Your task to perform on an android device: open a new tab in the chrome app Image 0: 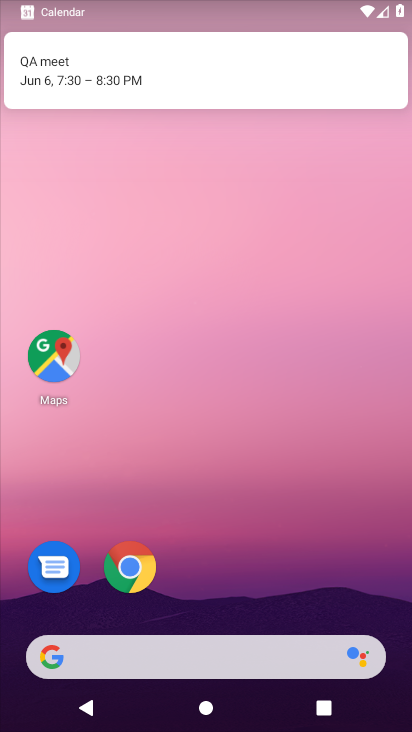
Step 0: drag from (252, 580) to (296, 26)
Your task to perform on an android device: open a new tab in the chrome app Image 1: 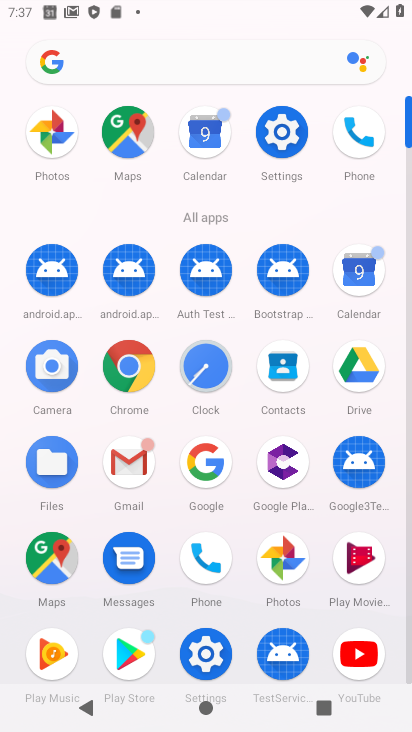
Step 1: click (127, 359)
Your task to perform on an android device: open a new tab in the chrome app Image 2: 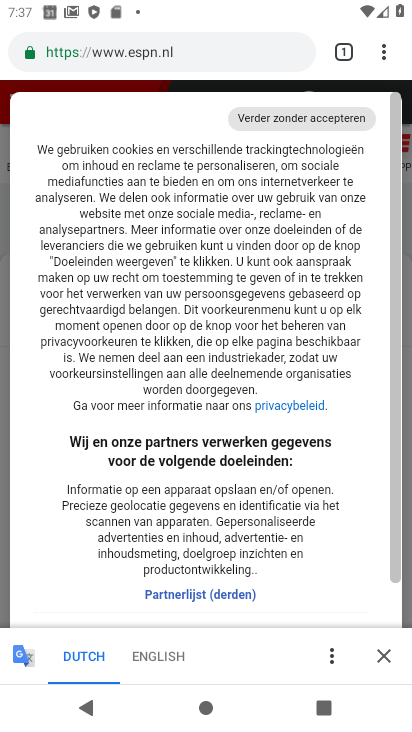
Step 2: task complete